Your task to perform on an android device: Go to privacy settings Image 0: 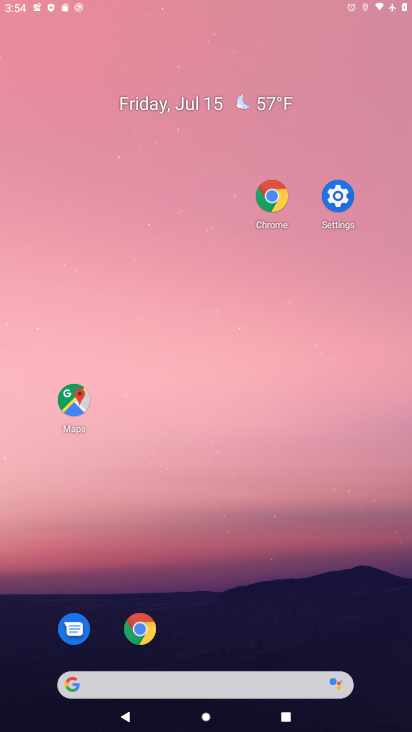
Step 0: drag from (276, 623) to (259, 124)
Your task to perform on an android device: Go to privacy settings Image 1: 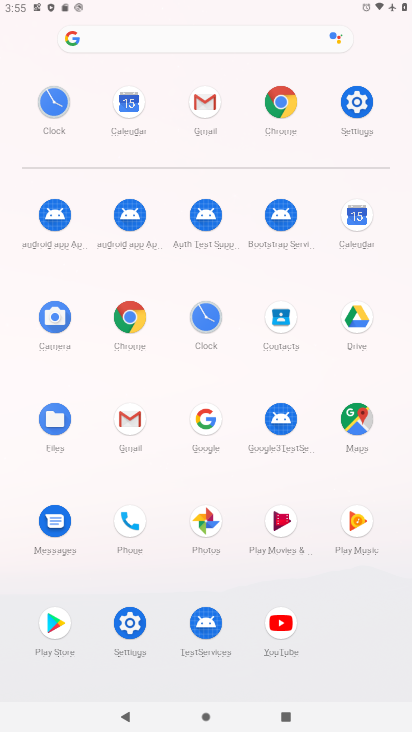
Step 1: click (353, 109)
Your task to perform on an android device: Go to privacy settings Image 2: 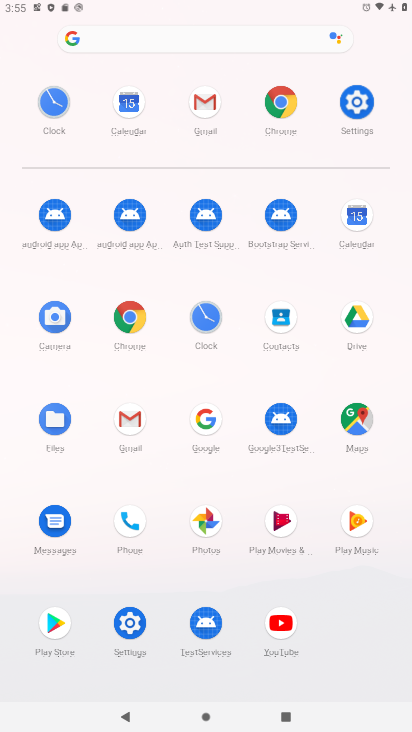
Step 2: click (353, 109)
Your task to perform on an android device: Go to privacy settings Image 3: 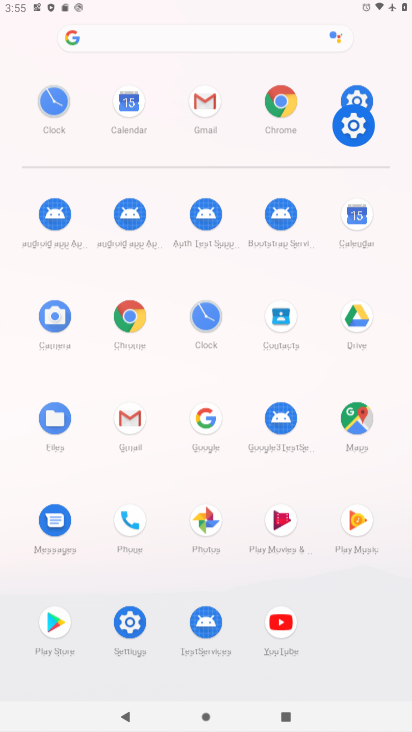
Step 3: click (353, 109)
Your task to perform on an android device: Go to privacy settings Image 4: 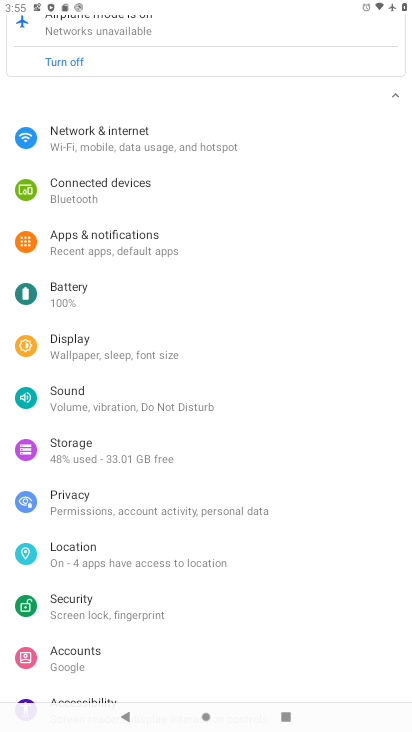
Step 4: click (88, 496)
Your task to perform on an android device: Go to privacy settings Image 5: 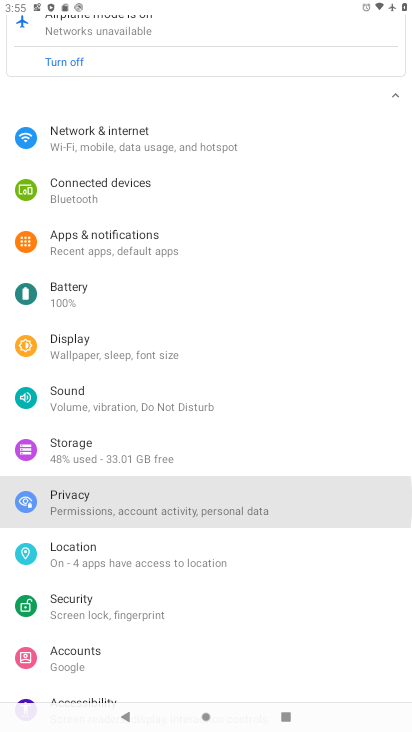
Step 5: click (86, 494)
Your task to perform on an android device: Go to privacy settings Image 6: 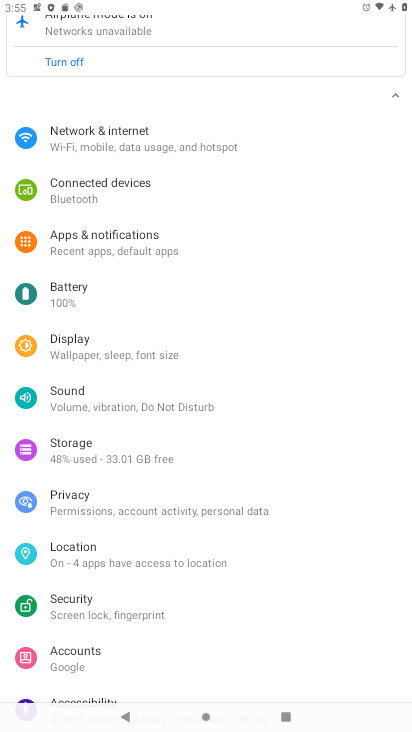
Step 6: click (86, 494)
Your task to perform on an android device: Go to privacy settings Image 7: 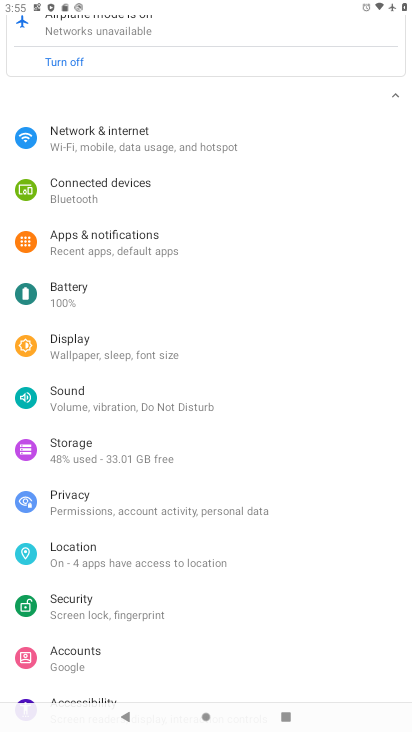
Step 7: click (86, 494)
Your task to perform on an android device: Go to privacy settings Image 8: 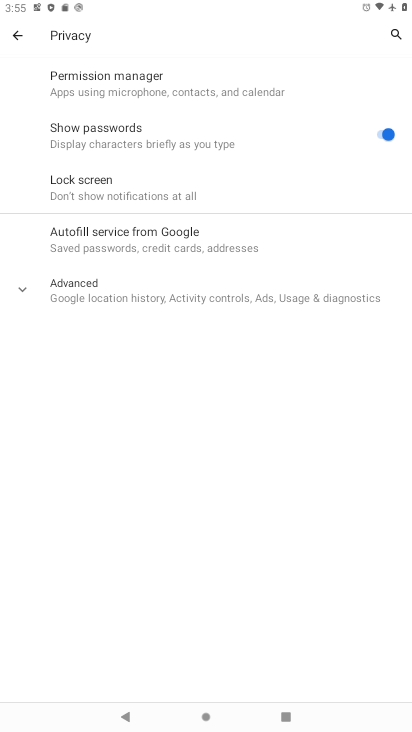
Step 8: task complete